Your task to perform on an android device: Go to Amazon Image 0: 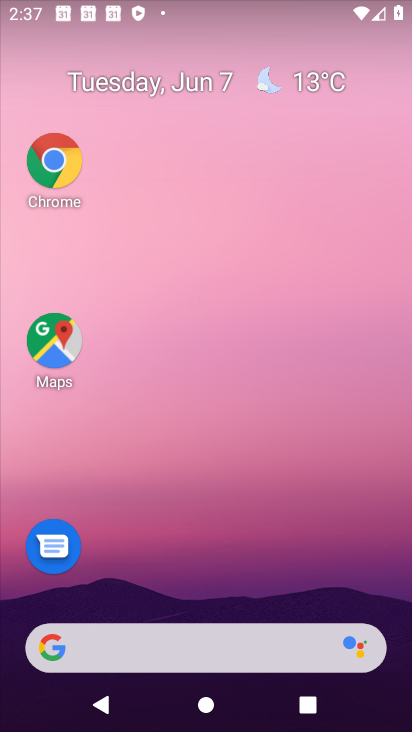
Step 0: click (207, 97)
Your task to perform on an android device: Go to Amazon Image 1: 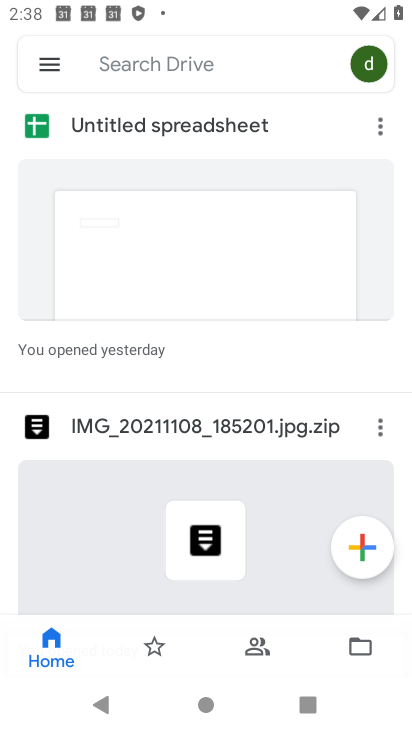
Step 1: press home button
Your task to perform on an android device: Go to Amazon Image 2: 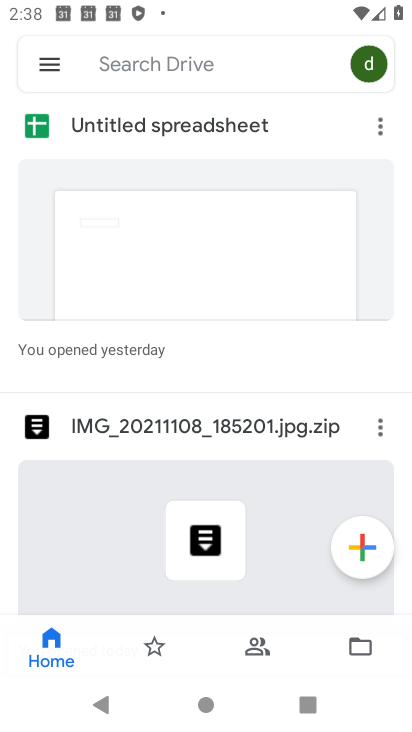
Step 2: press home button
Your task to perform on an android device: Go to Amazon Image 3: 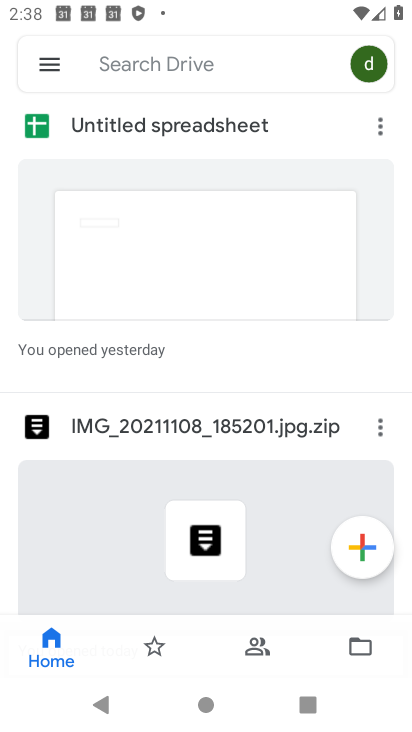
Step 3: drag from (210, 255) to (234, 153)
Your task to perform on an android device: Go to Amazon Image 4: 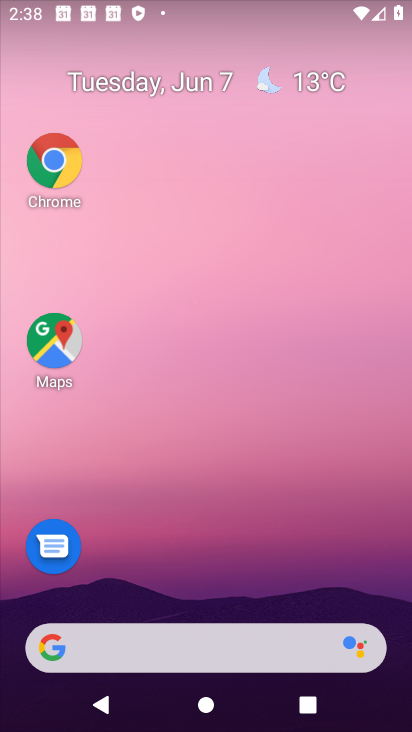
Step 4: drag from (217, 528) to (264, 198)
Your task to perform on an android device: Go to Amazon Image 5: 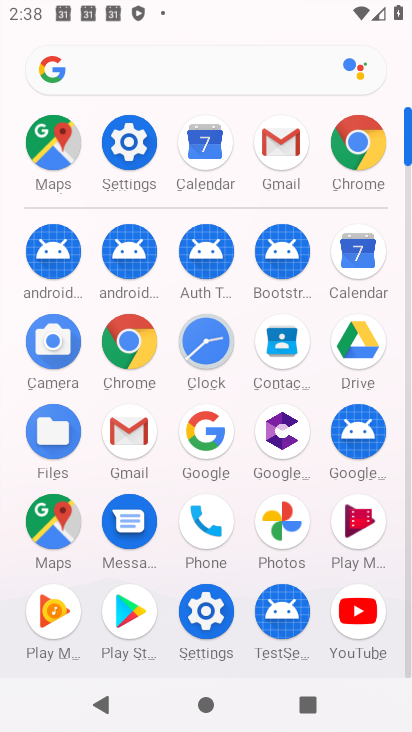
Step 5: click (133, 331)
Your task to perform on an android device: Go to Amazon Image 6: 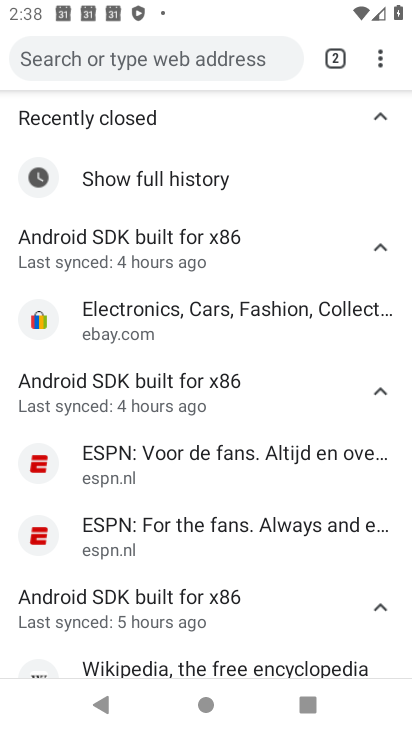
Step 6: click (136, 66)
Your task to perform on an android device: Go to Amazon Image 7: 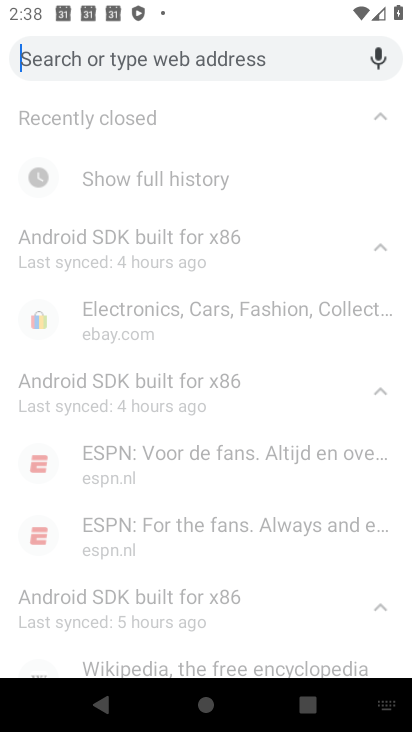
Step 7: type " Amazon"
Your task to perform on an android device: Go to Amazon Image 8: 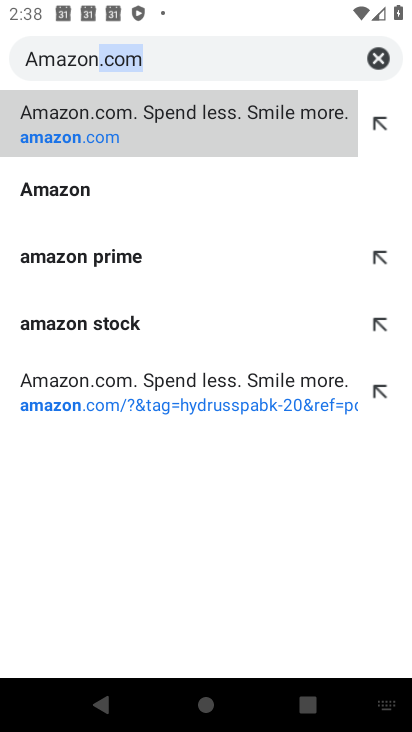
Step 8: click (55, 117)
Your task to perform on an android device: Go to Amazon Image 9: 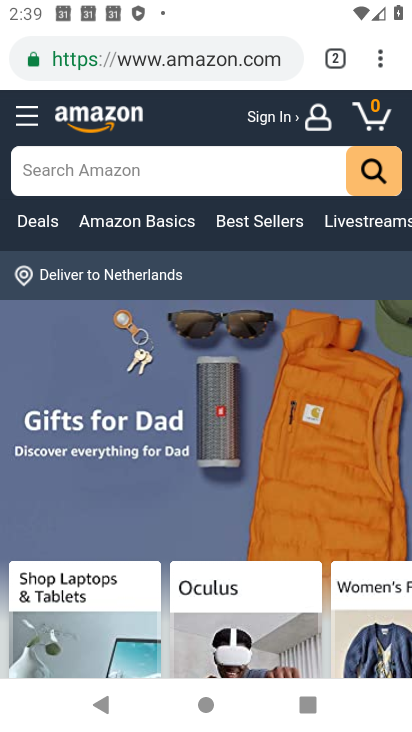
Step 9: task complete